Your task to perform on an android device: Open settings Image 0: 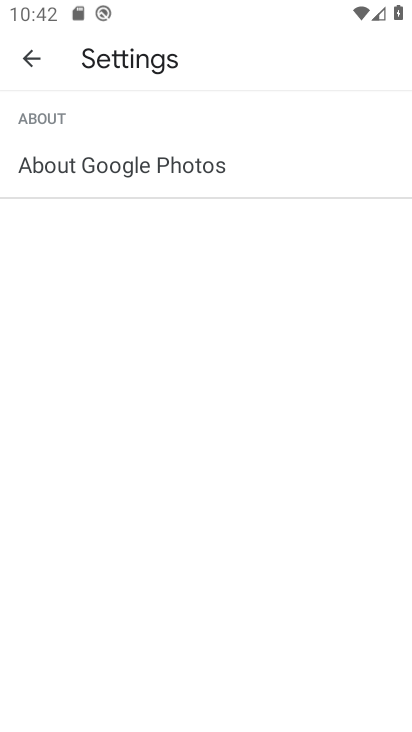
Step 0: press home button
Your task to perform on an android device: Open settings Image 1: 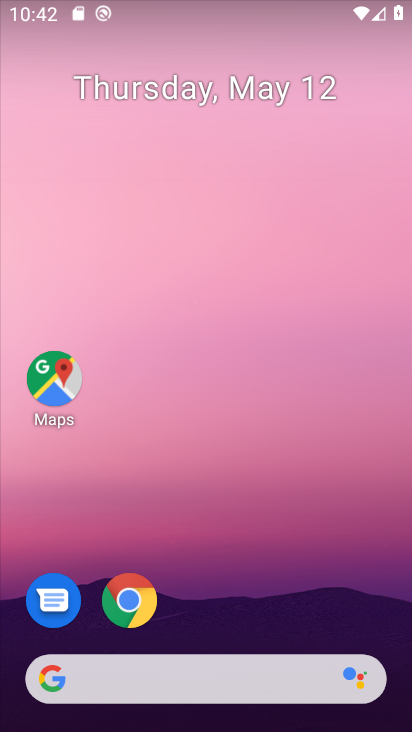
Step 1: drag from (178, 581) to (30, 132)
Your task to perform on an android device: Open settings Image 2: 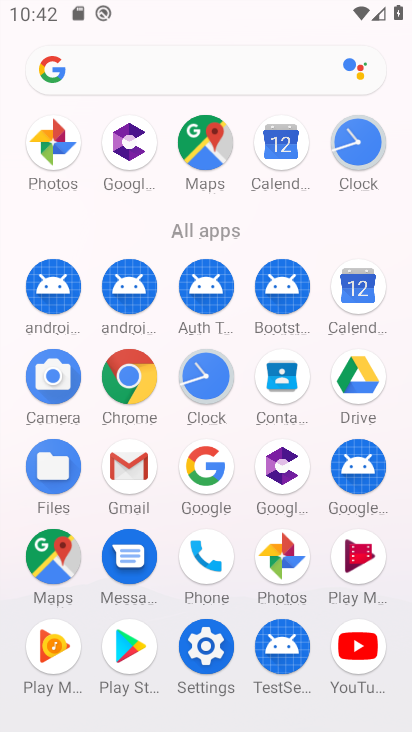
Step 2: click (222, 638)
Your task to perform on an android device: Open settings Image 3: 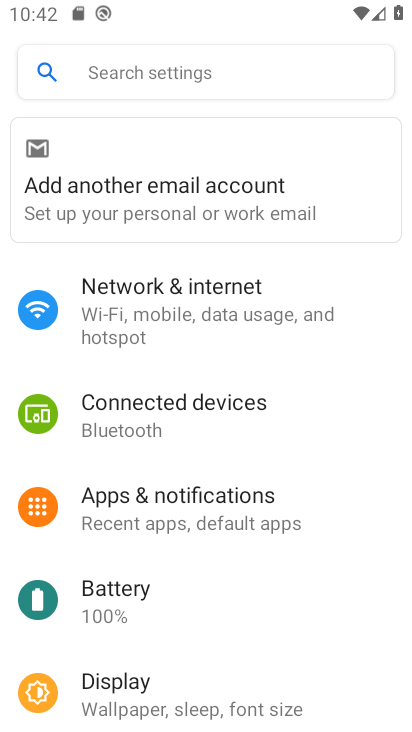
Step 3: task complete